Your task to perform on an android device: toggle notification dots Image 0: 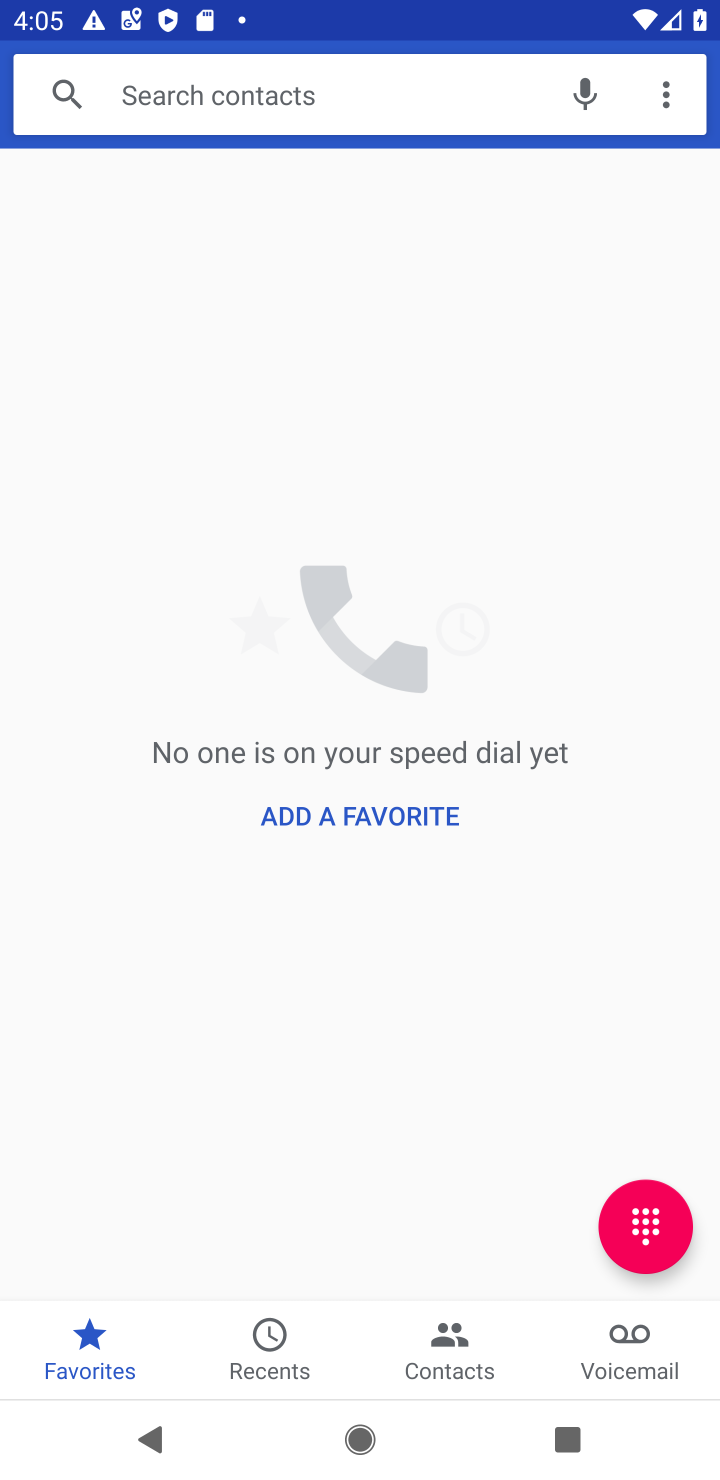
Step 0: press home button
Your task to perform on an android device: toggle notification dots Image 1: 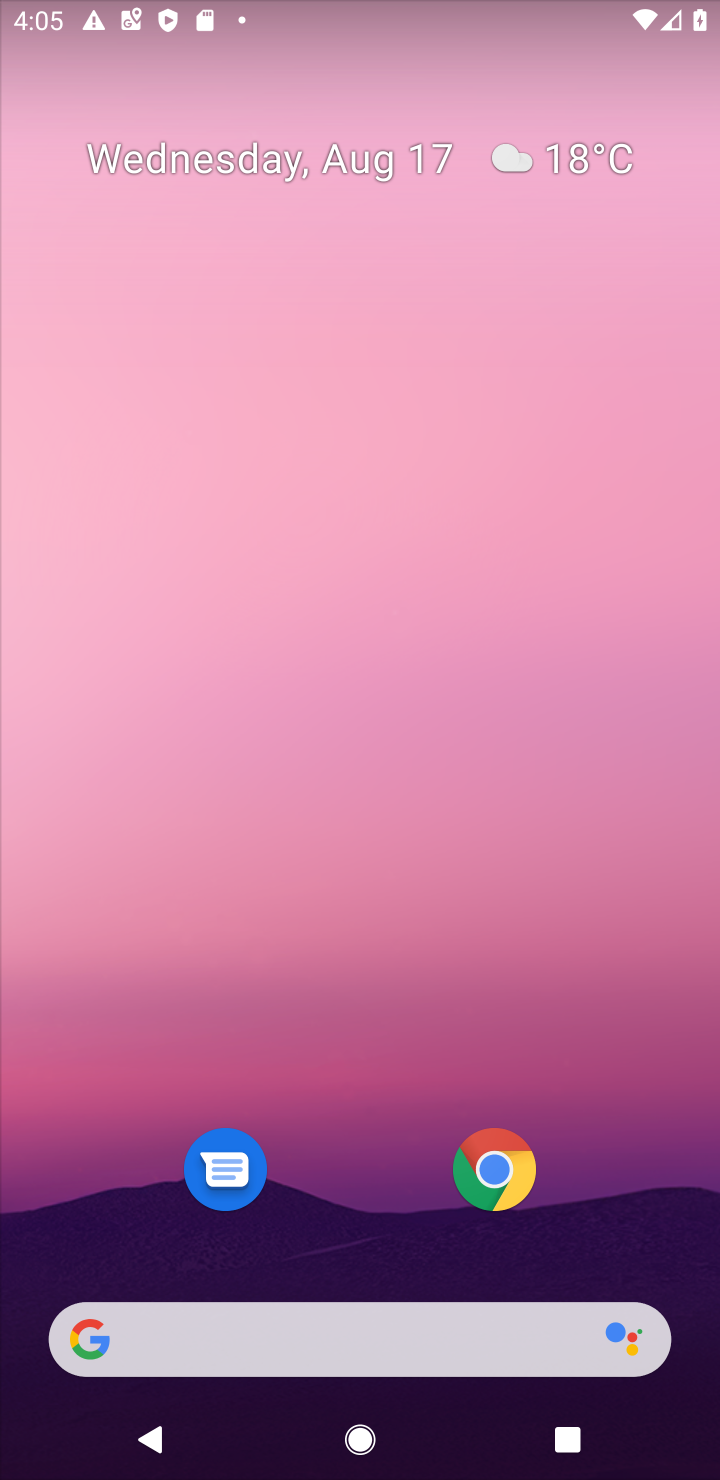
Step 1: drag from (355, 835) to (354, 61)
Your task to perform on an android device: toggle notification dots Image 2: 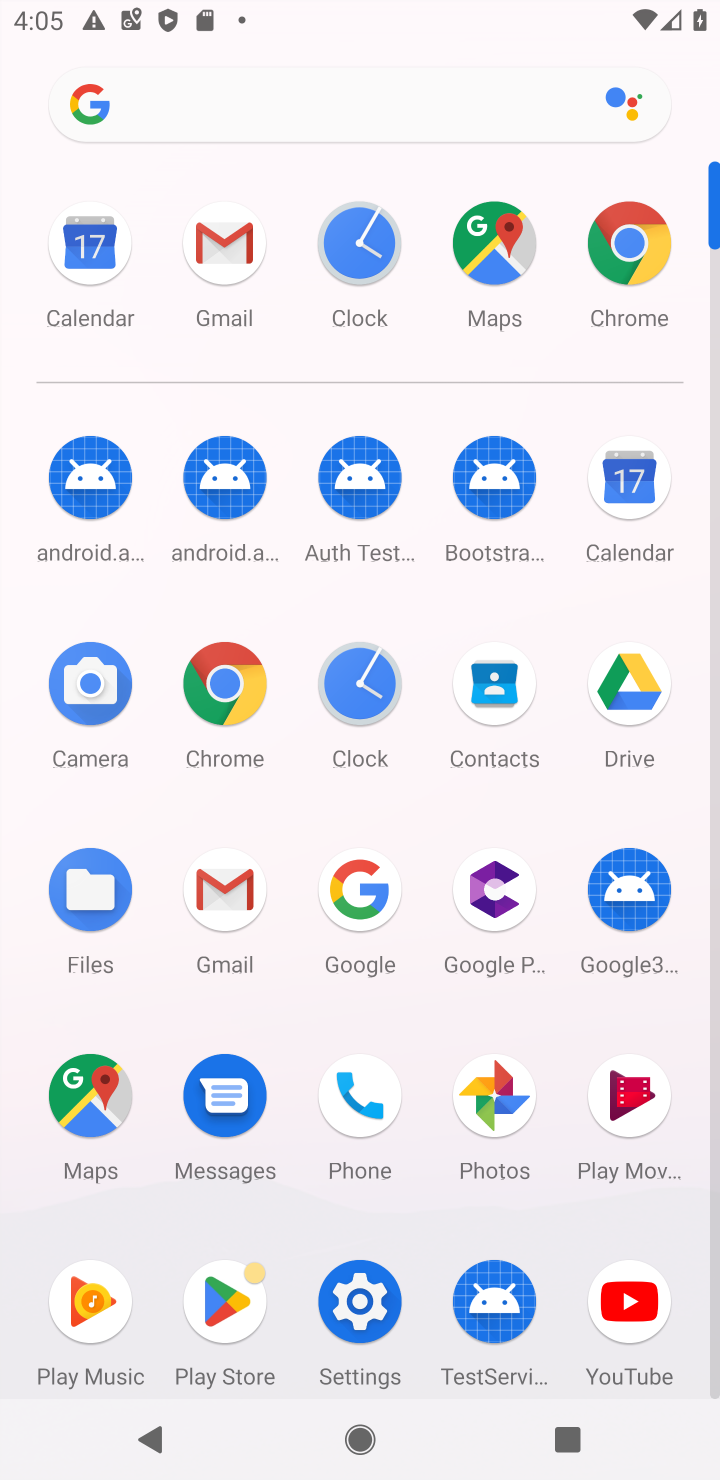
Step 2: click (346, 1294)
Your task to perform on an android device: toggle notification dots Image 3: 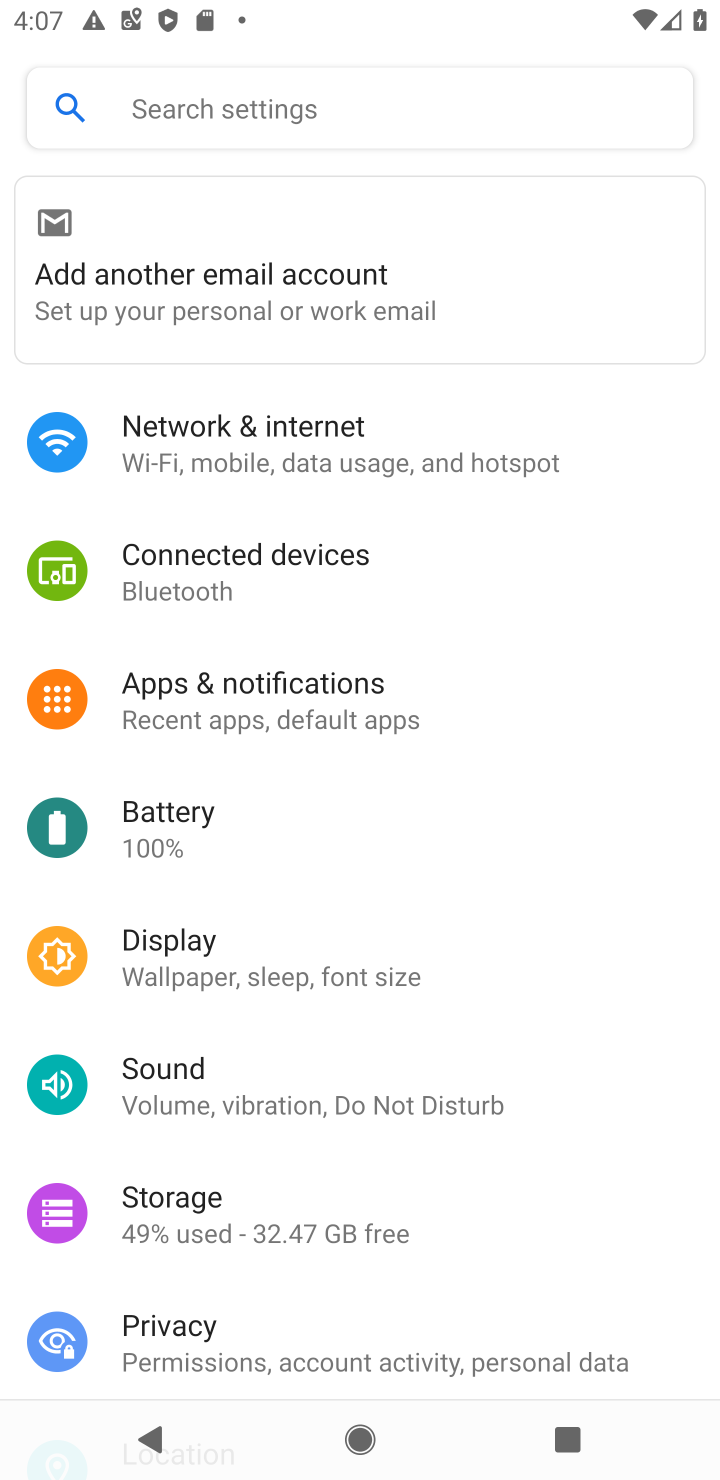
Step 3: click (217, 712)
Your task to perform on an android device: toggle notification dots Image 4: 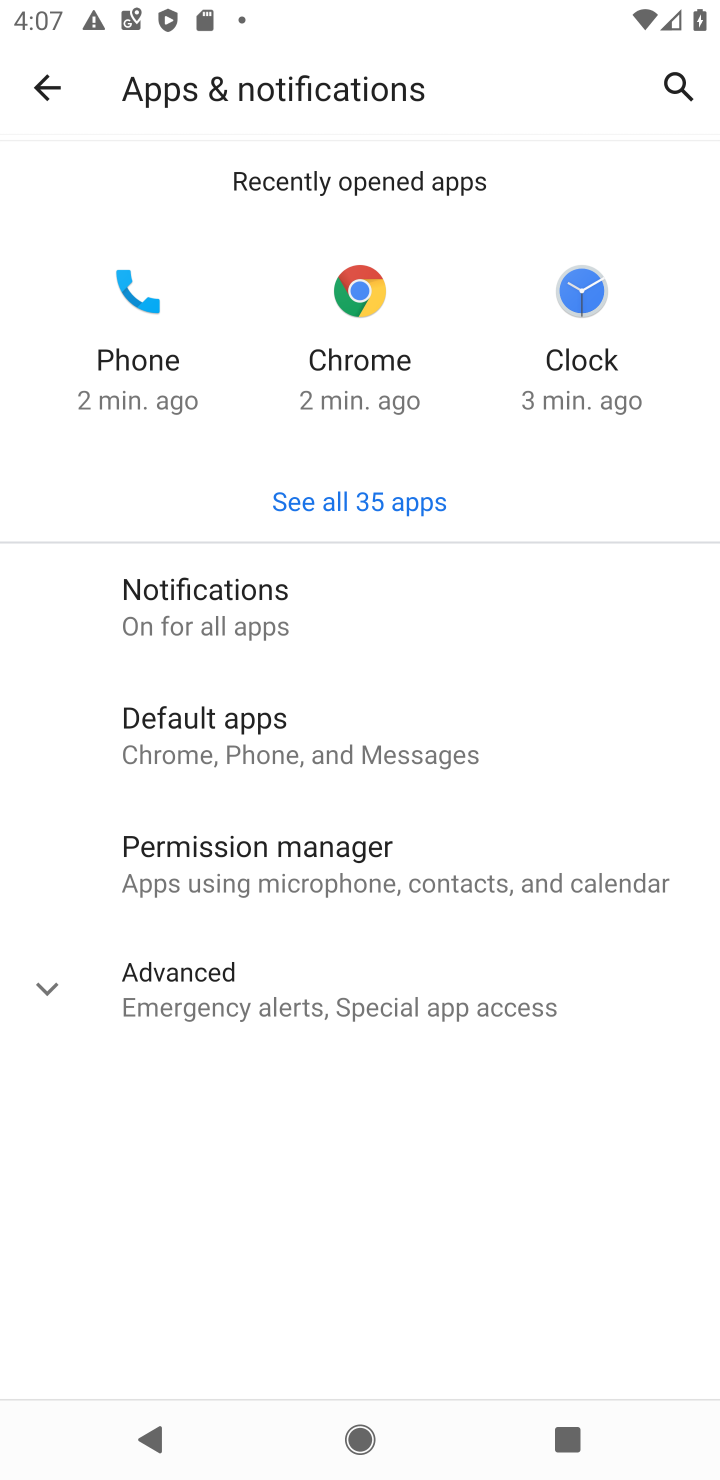
Step 4: click (211, 631)
Your task to perform on an android device: toggle notification dots Image 5: 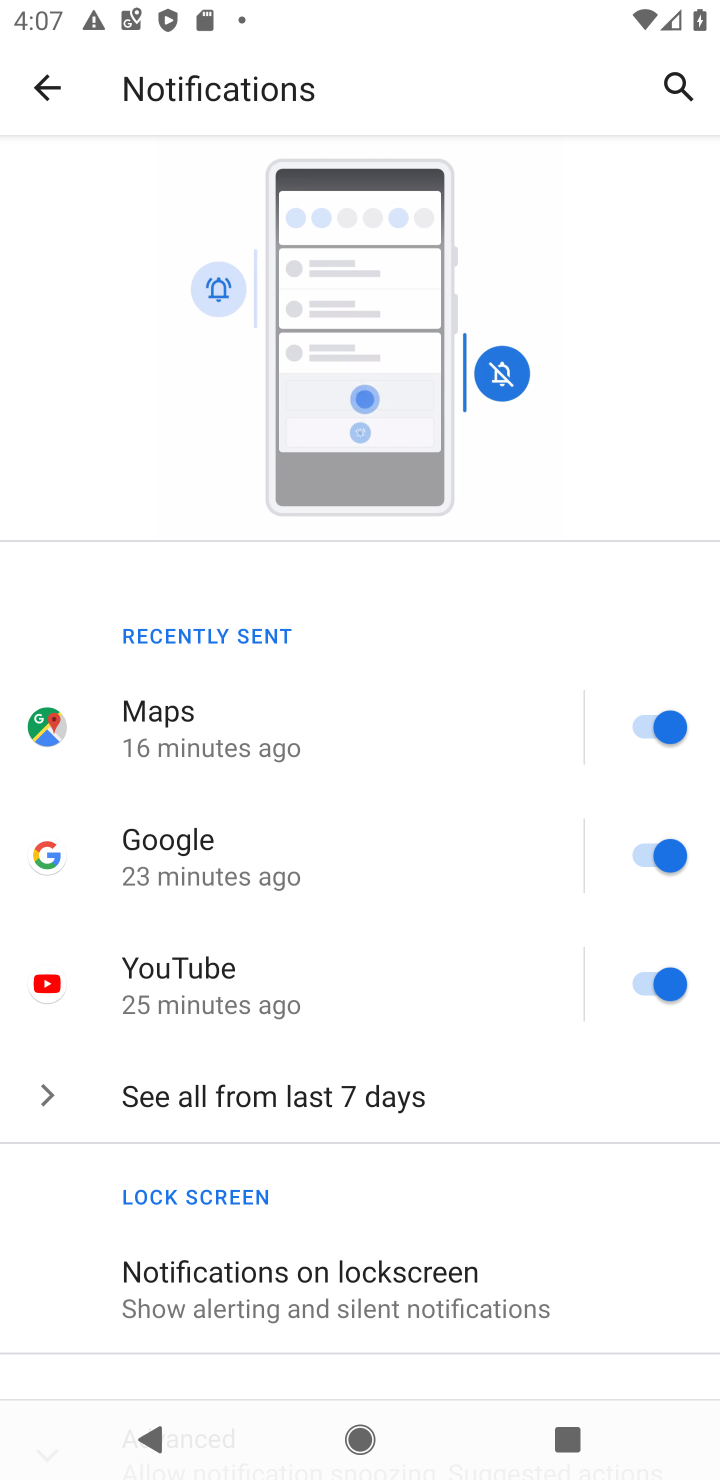
Step 5: click (369, 1260)
Your task to perform on an android device: toggle notification dots Image 6: 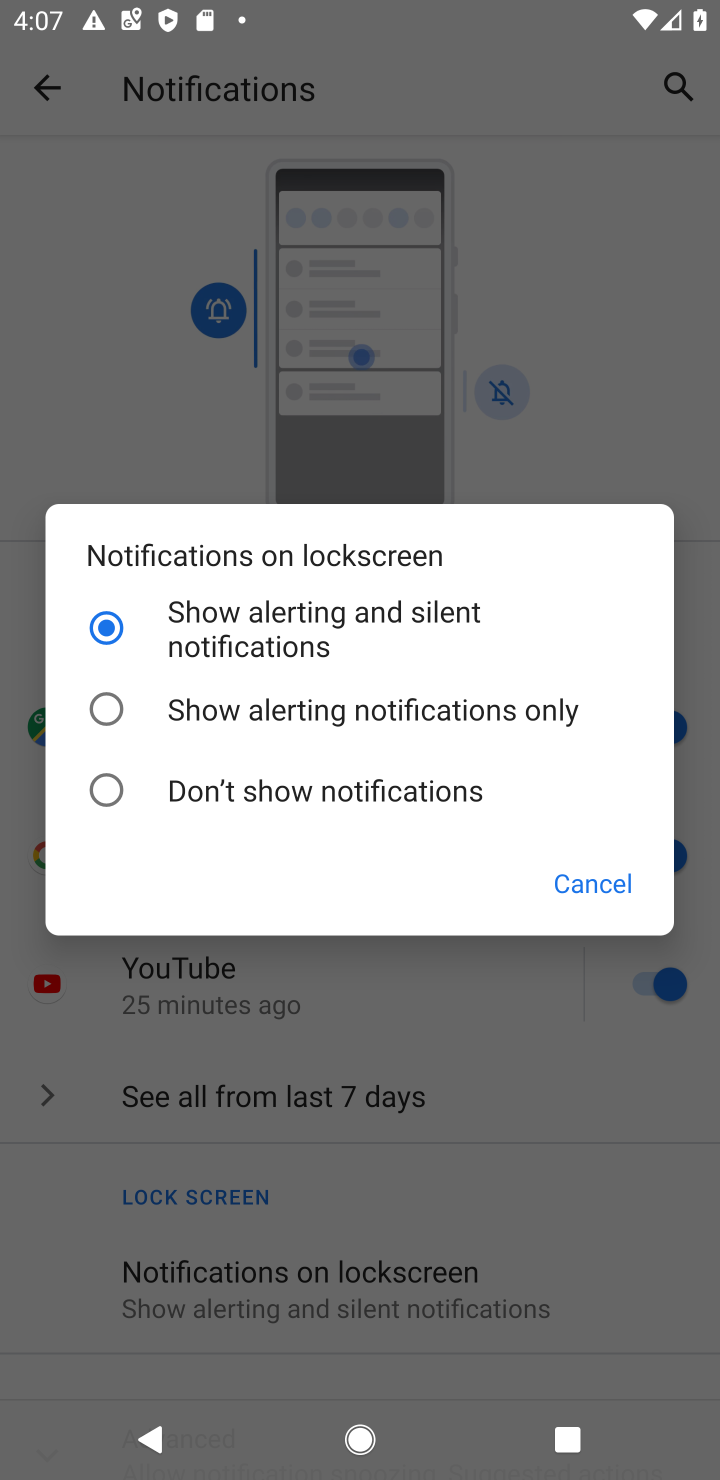
Step 6: click (597, 410)
Your task to perform on an android device: toggle notification dots Image 7: 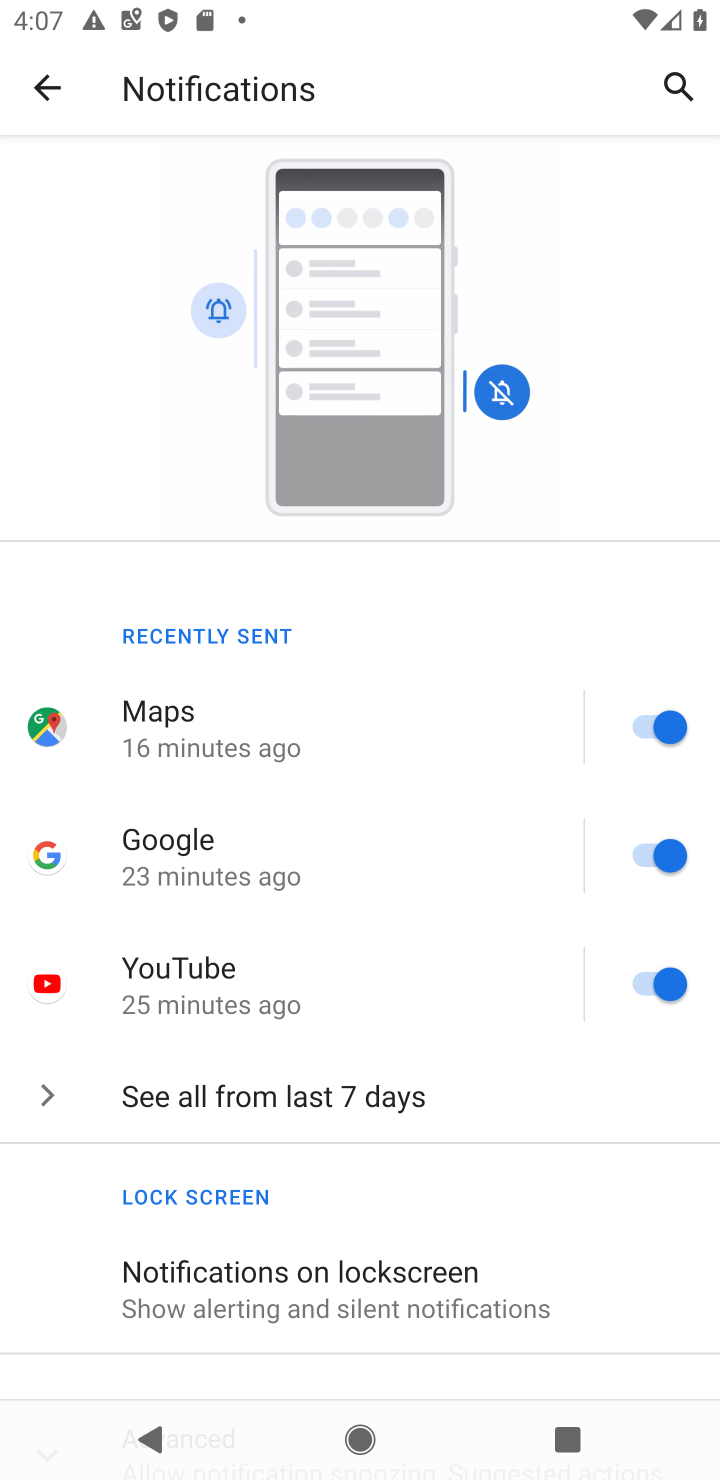
Step 7: drag from (572, 1191) to (606, 107)
Your task to perform on an android device: toggle notification dots Image 8: 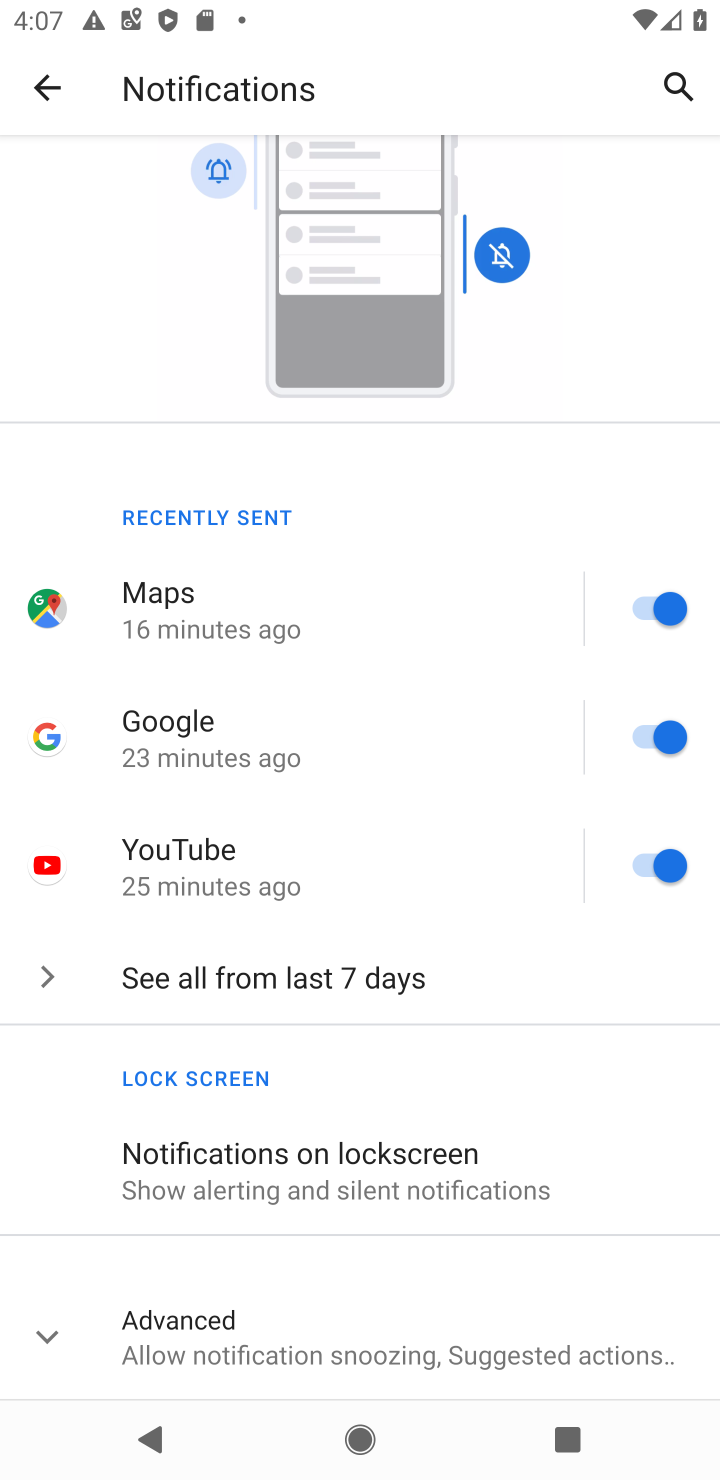
Step 8: click (261, 1327)
Your task to perform on an android device: toggle notification dots Image 9: 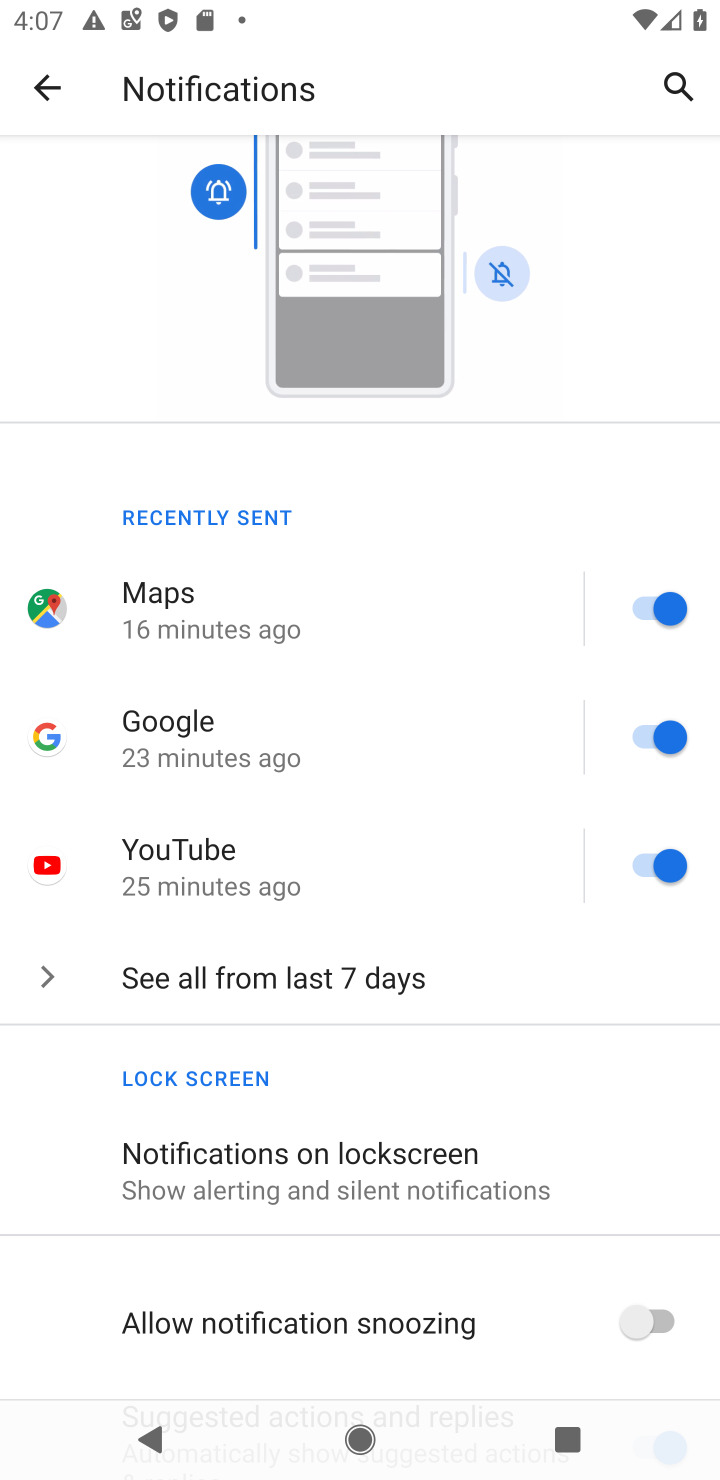
Step 9: drag from (458, 999) to (506, 350)
Your task to perform on an android device: toggle notification dots Image 10: 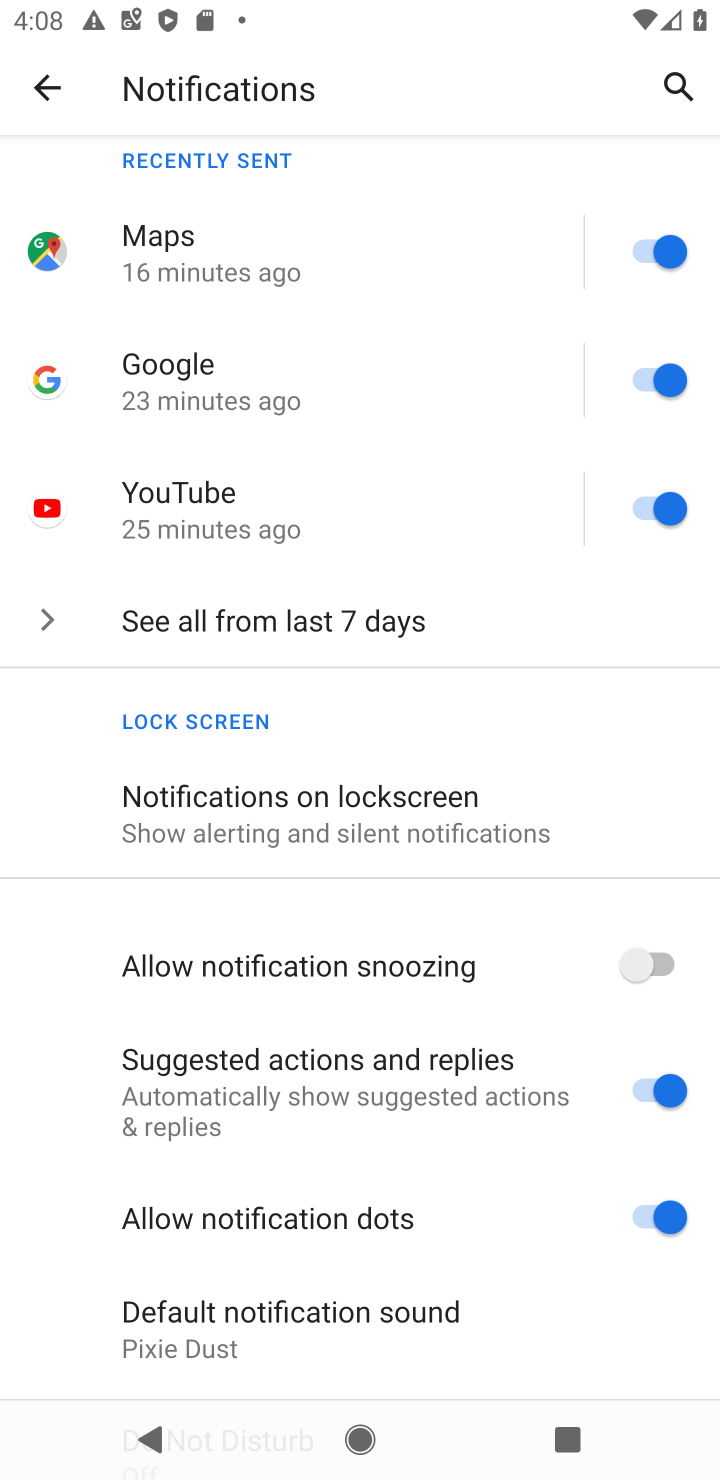
Step 10: click (560, 1221)
Your task to perform on an android device: toggle notification dots Image 11: 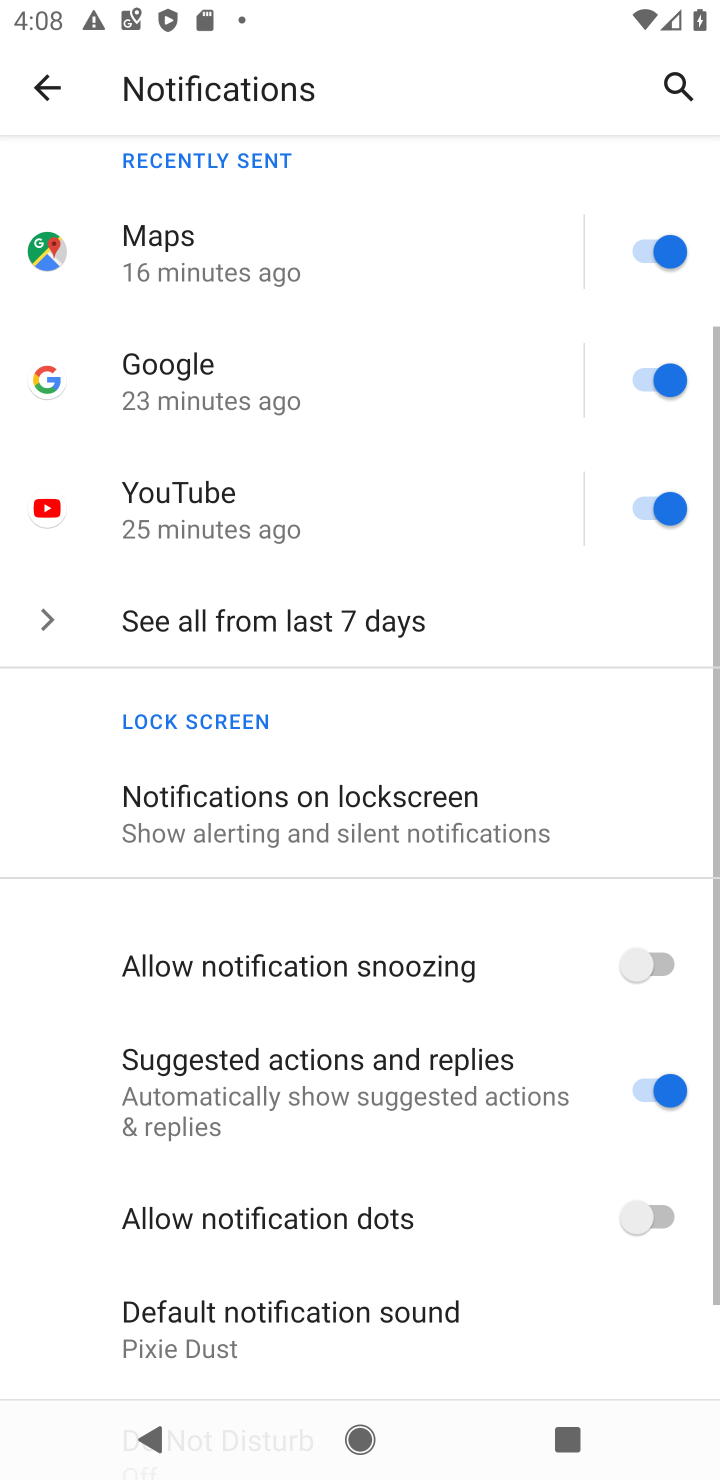
Step 11: task complete